Your task to perform on an android device: Clear all items from cart on bestbuy. Image 0: 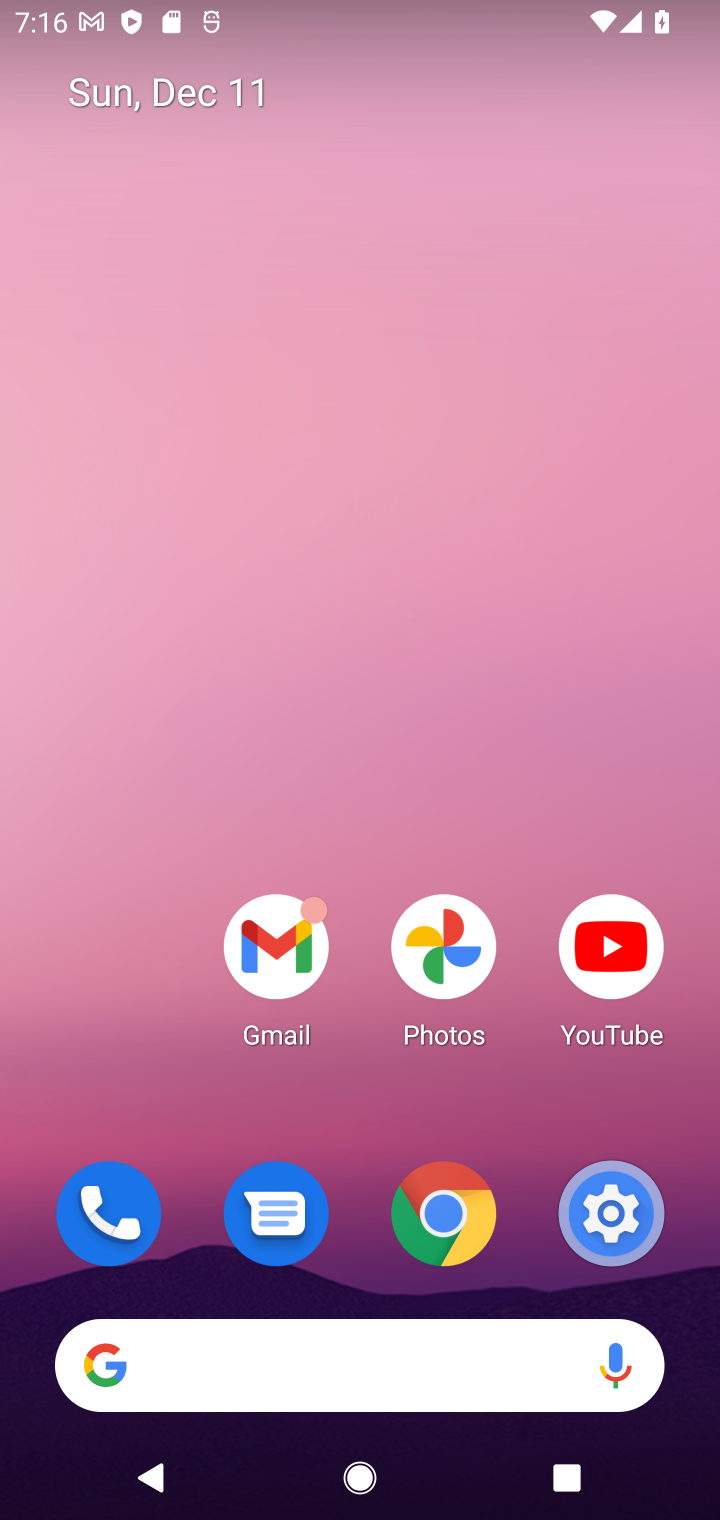
Step 0: click (312, 1398)
Your task to perform on an android device: Clear all items from cart on bestbuy. Image 1: 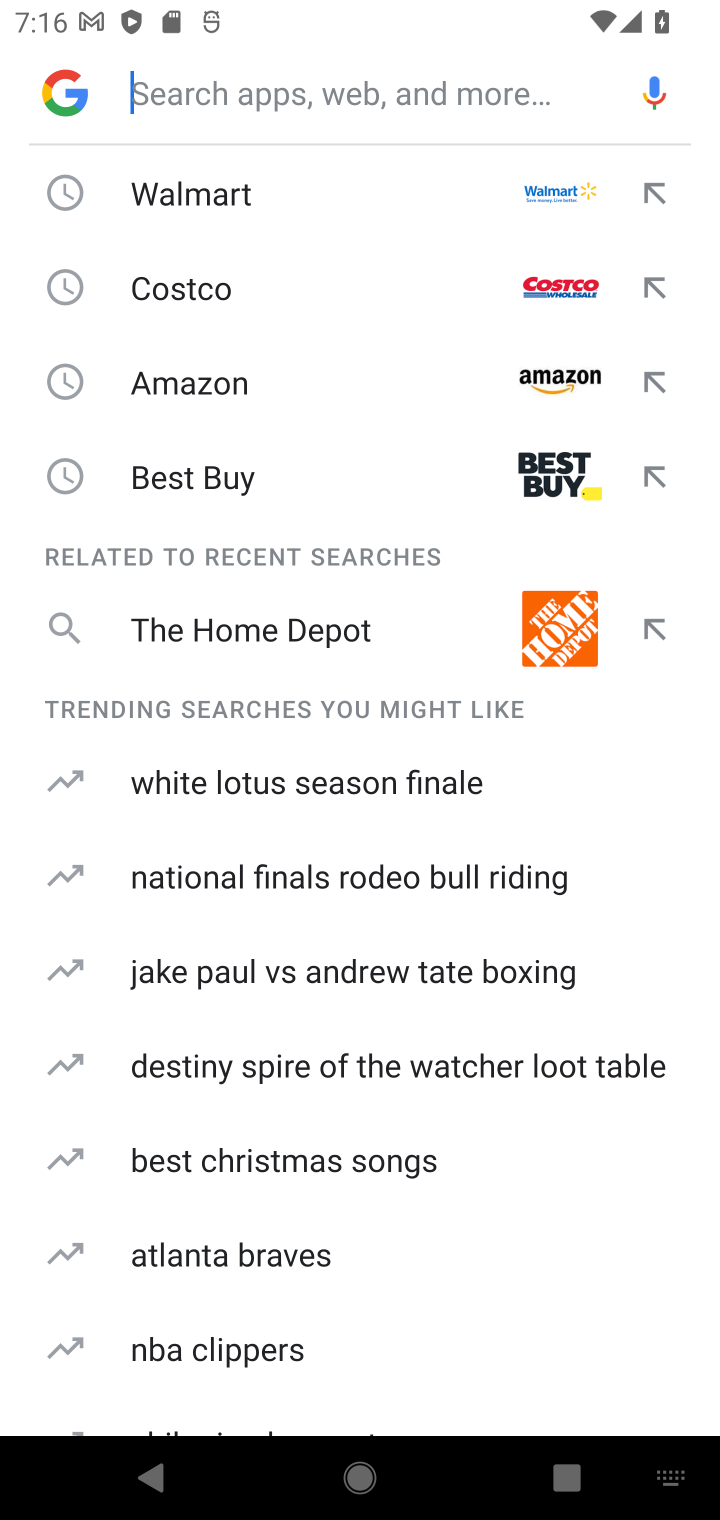
Step 1: type "bestbuy"
Your task to perform on an android device: Clear all items from cart on bestbuy. Image 2: 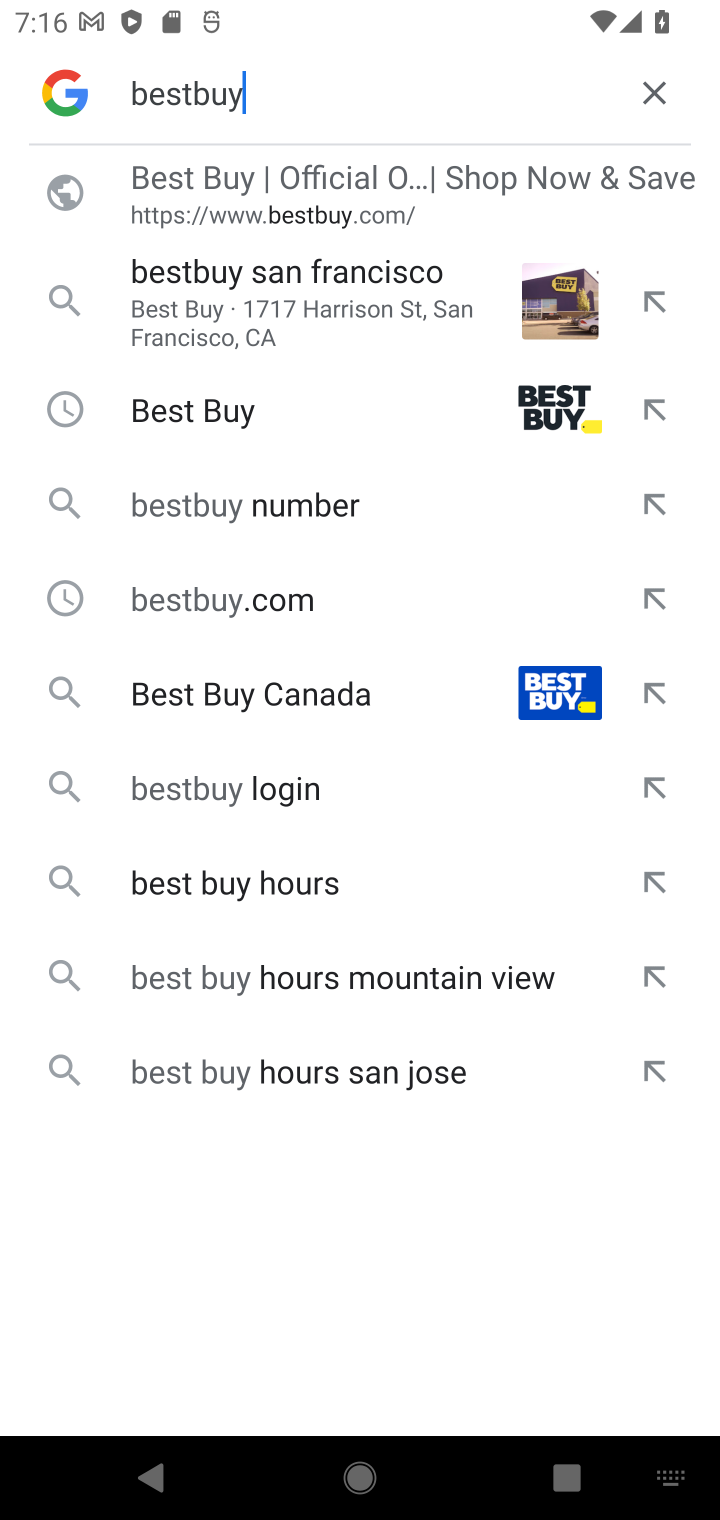
Step 2: click (239, 206)
Your task to perform on an android device: Clear all items from cart on bestbuy. Image 3: 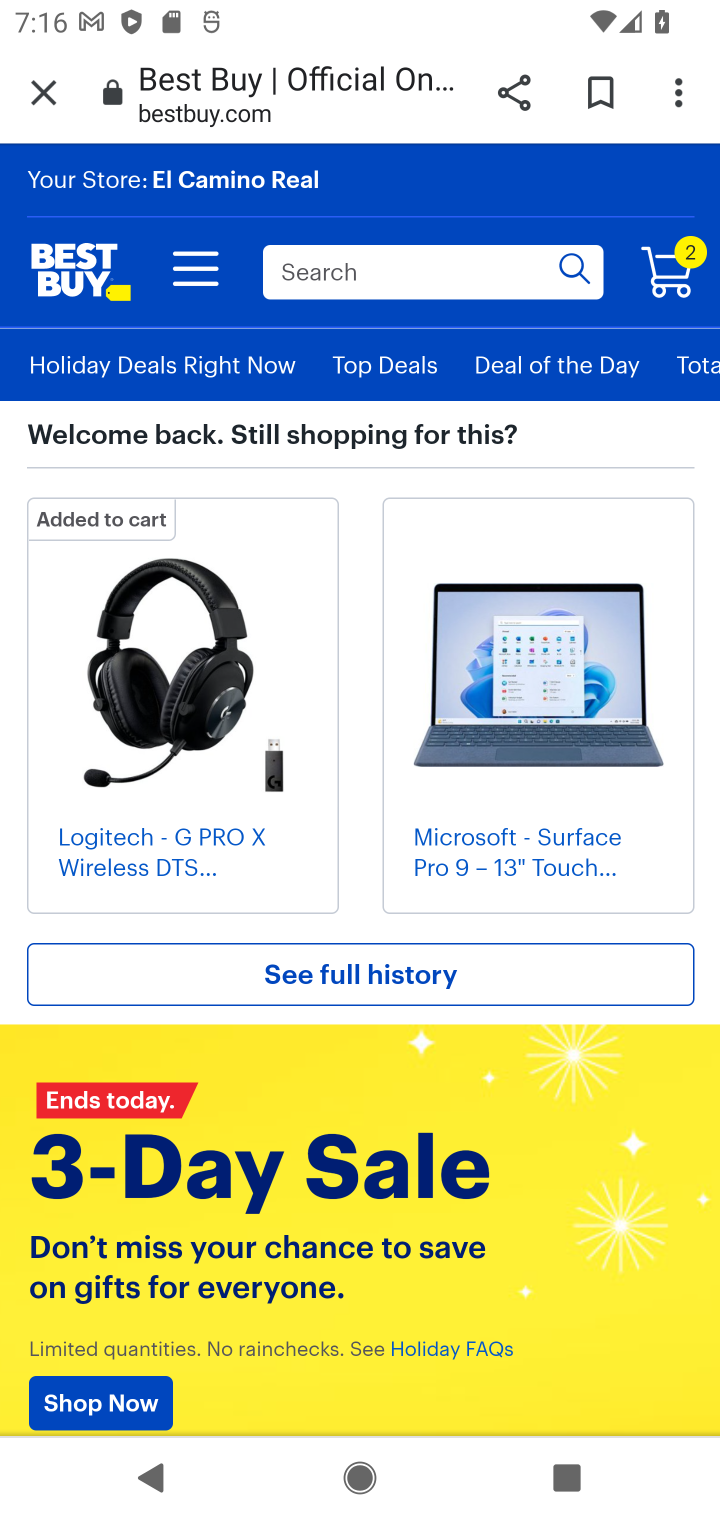
Step 3: click (348, 285)
Your task to perform on an android device: Clear all items from cart on bestbuy. Image 4: 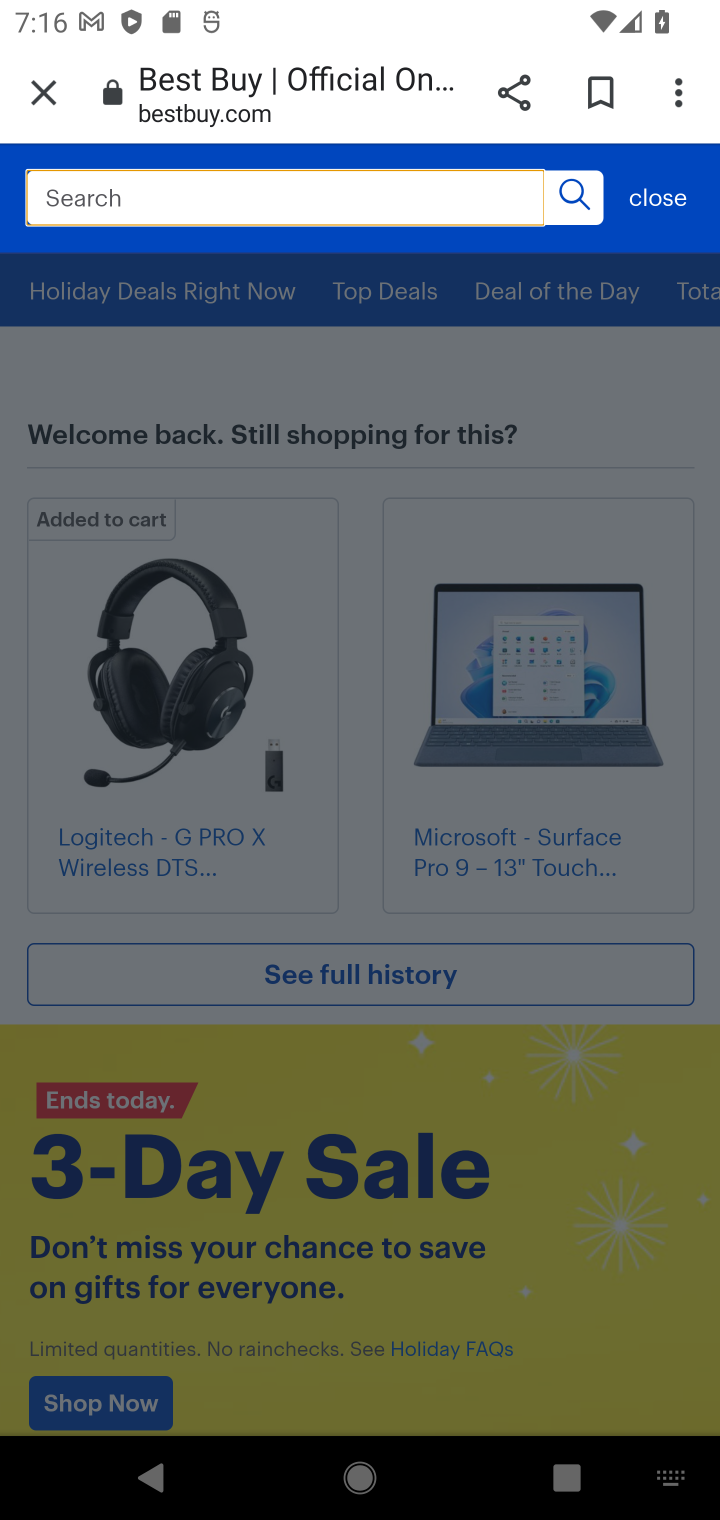
Step 4: click (656, 209)
Your task to perform on an android device: Clear all items from cart on bestbuy. Image 5: 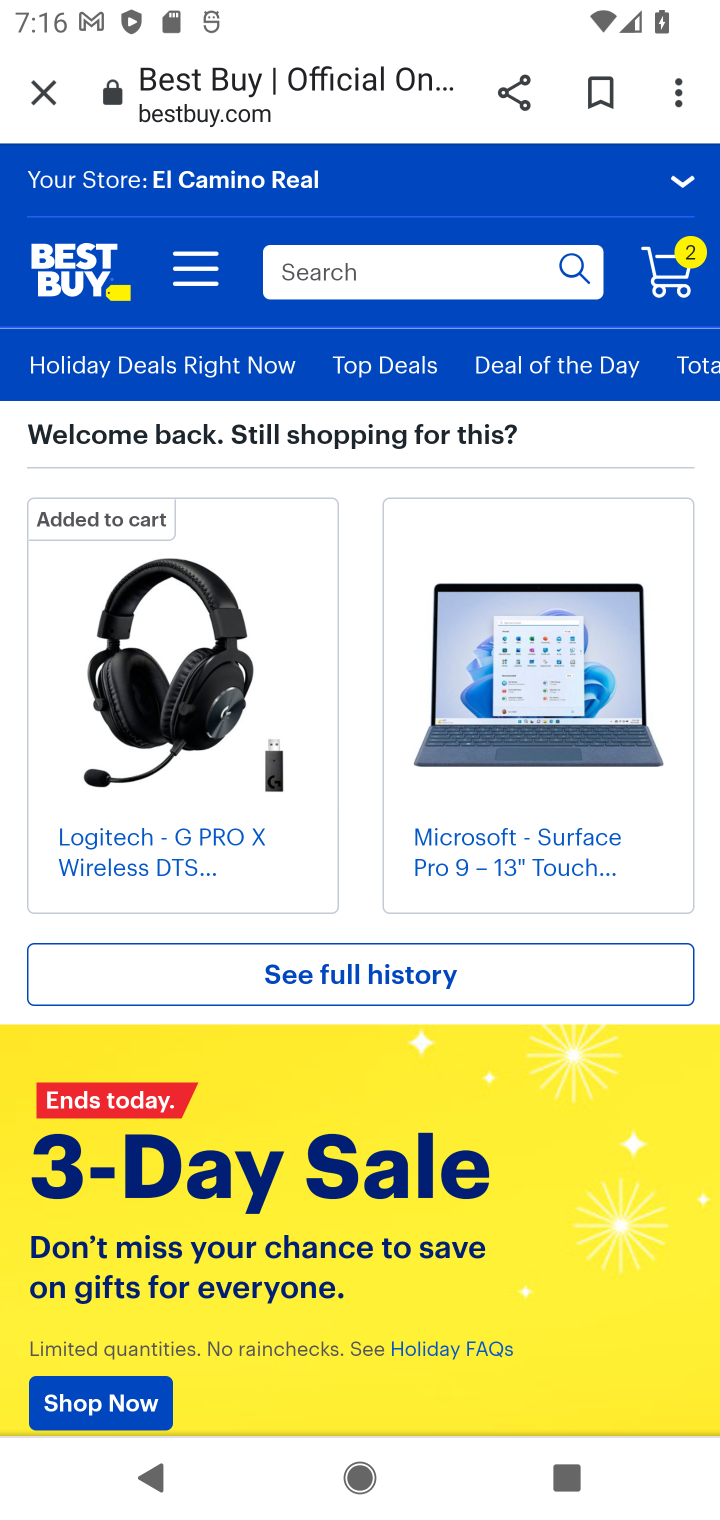
Step 5: click (675, 261)
Your task to perform on an android device: Clear all items from cart on bestbuy. Image 6: 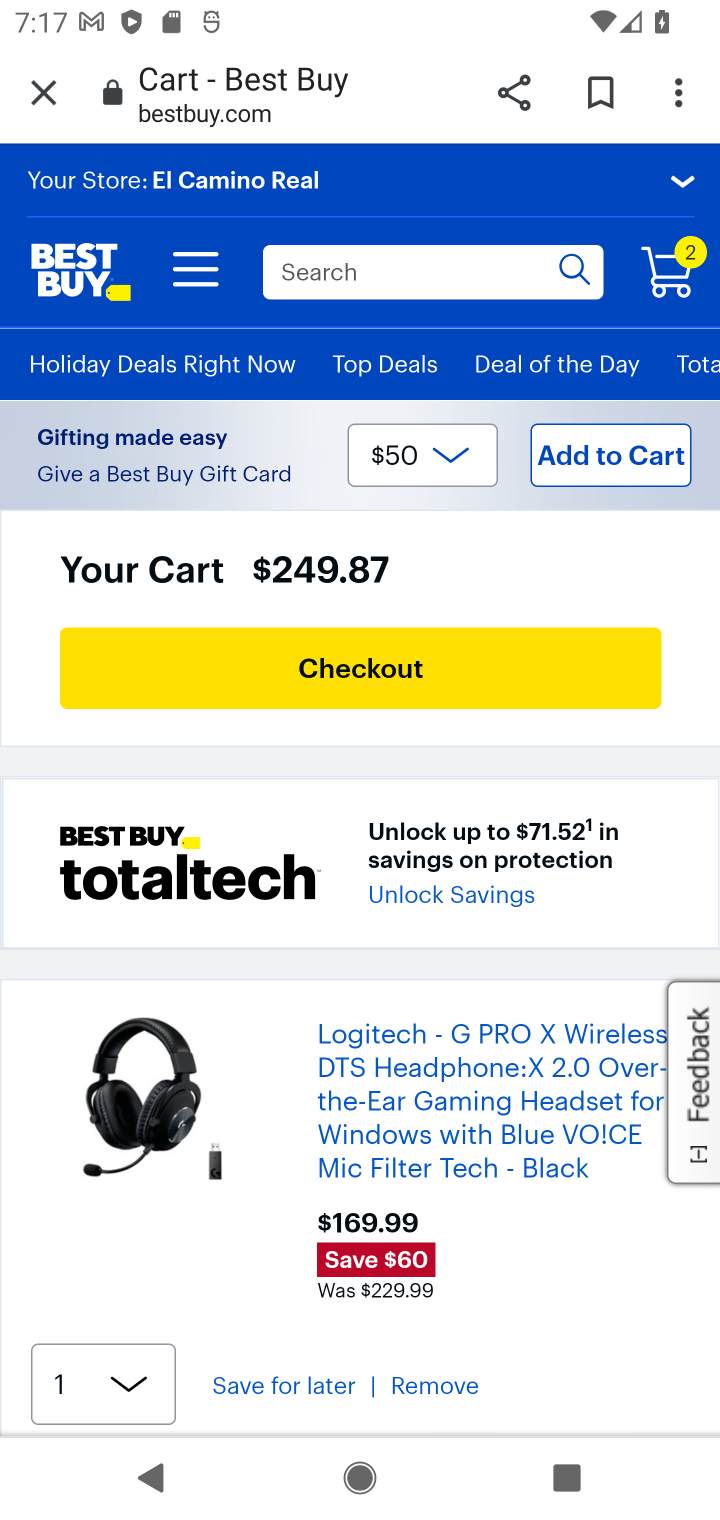
Step 6: task complete